Your task to perform on an android device: Search for "logitech g pro" on target.com, select the first entry, and add it to the cart. Image 0: 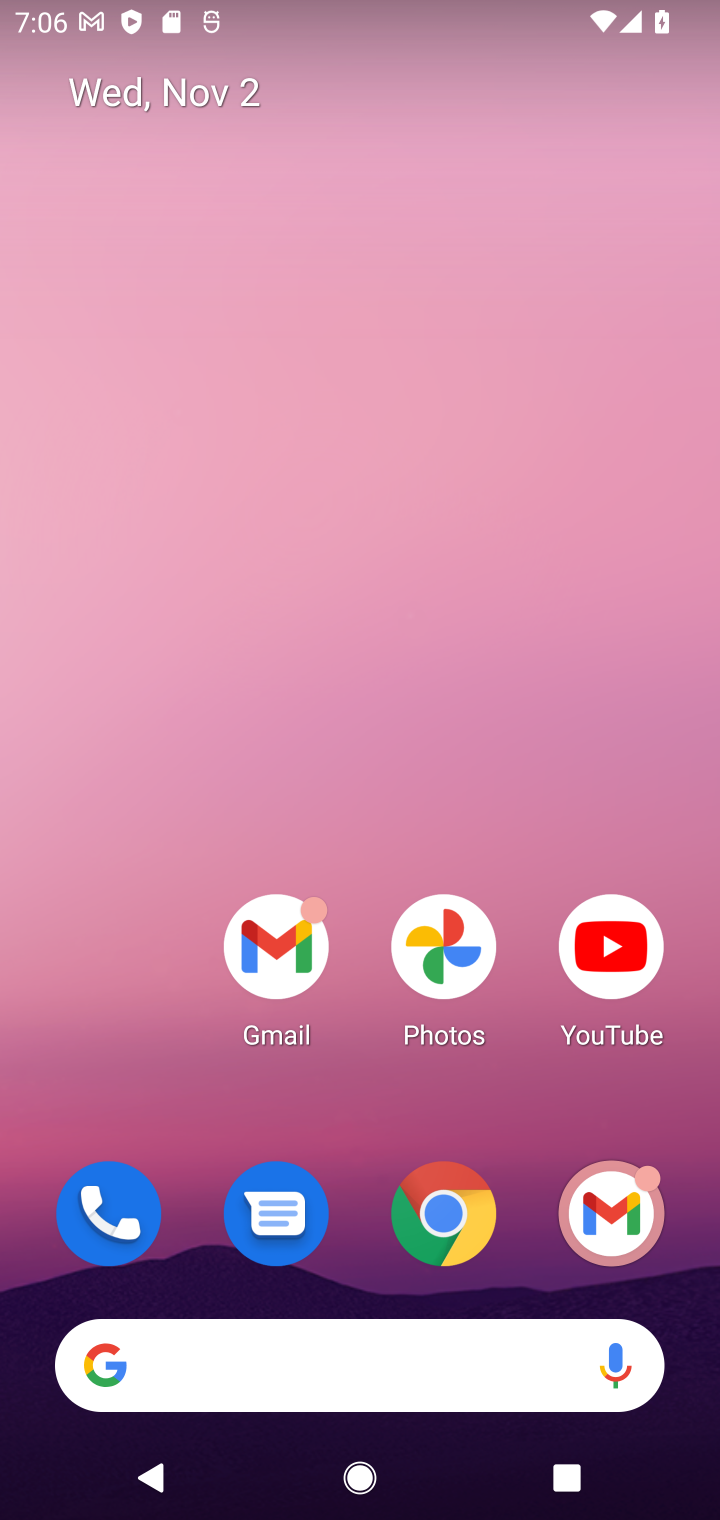
Step 0: click (439, 1219)
Your task to perform on an android device: Search for "logitech g pro" on target.com, select the first entry, and add it to the cart. Image 1: 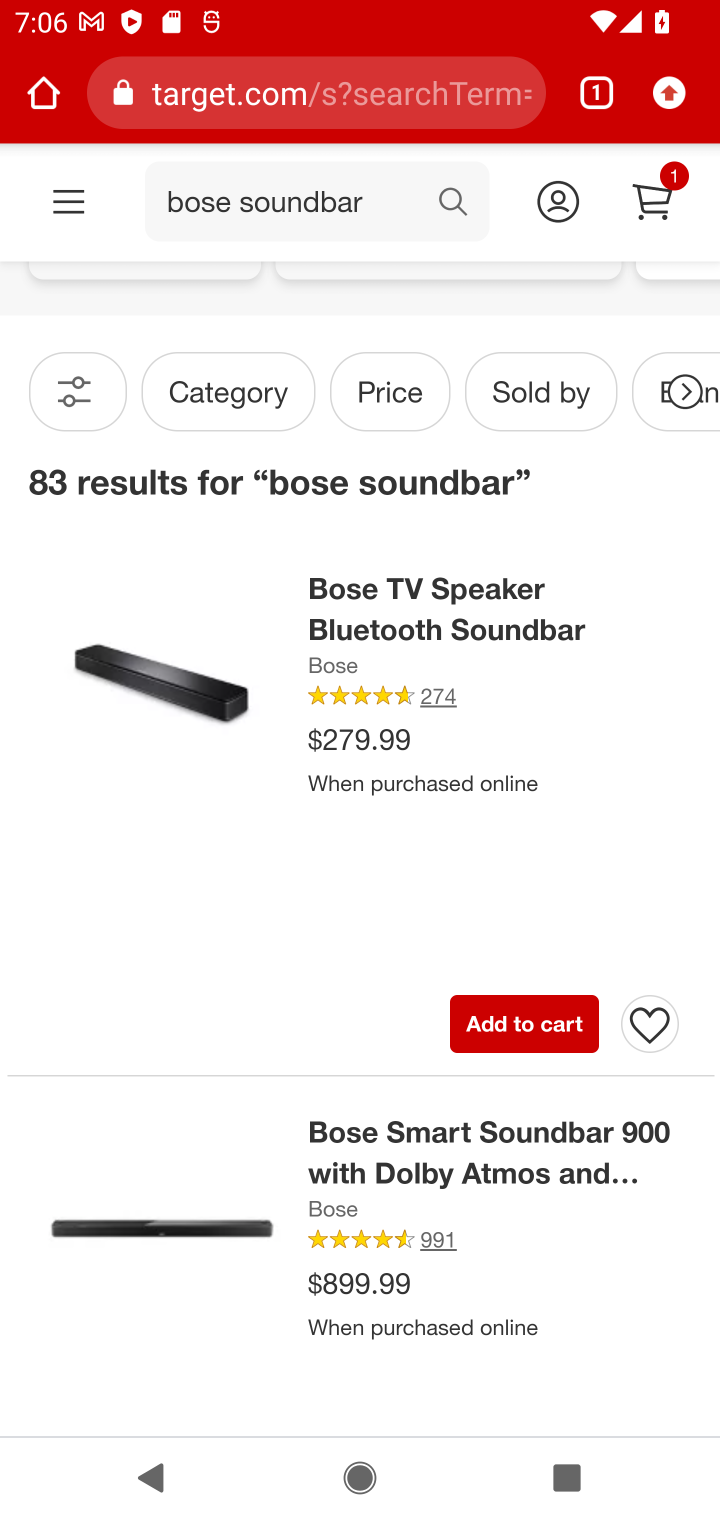
Step 1: click (335, 61)
Your task to perform on an android device: Search for "logitech g pro" on target.com, select the first entry, and add it to the cart. Image 2: 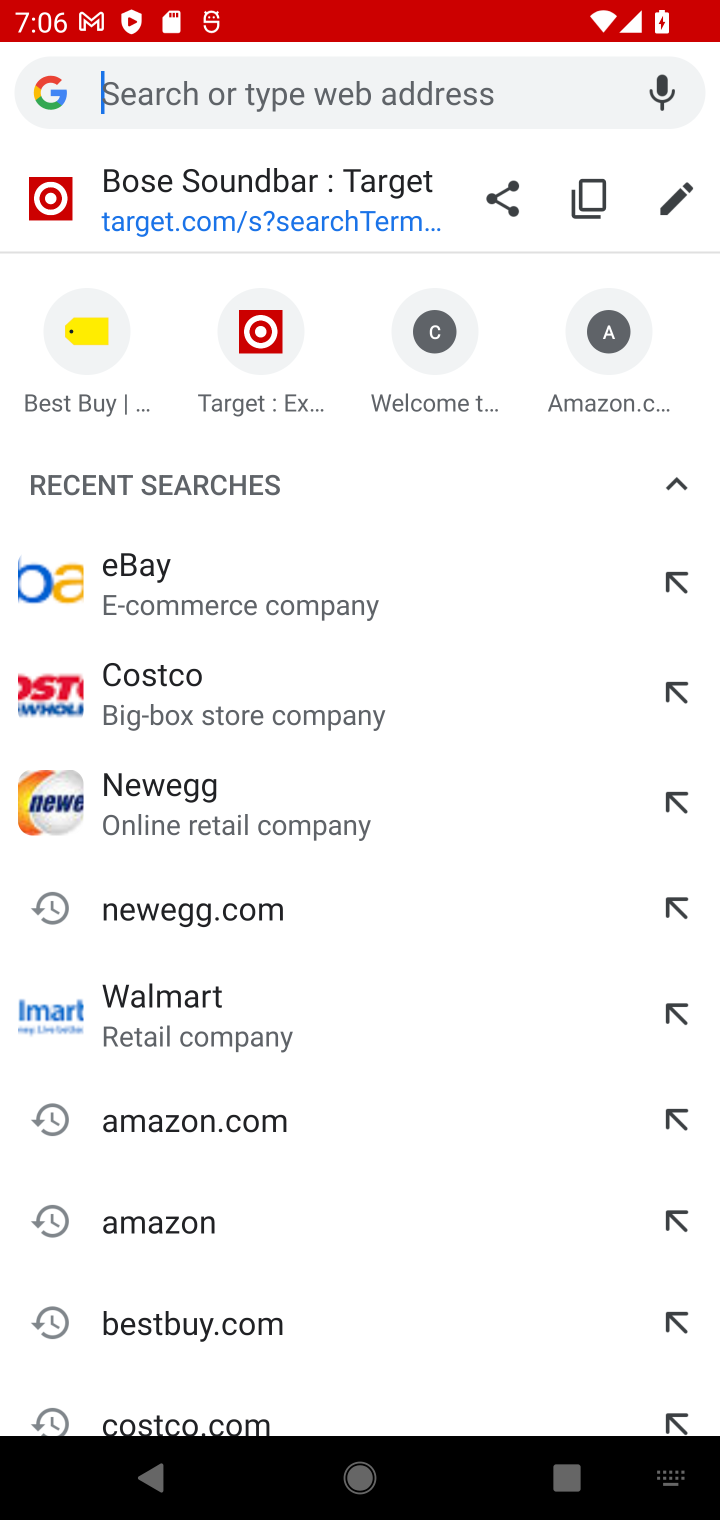
Step 2: type "target.com"
Your task to perform on an android device: Search for "logitech g pro" on target.com, select the first entry, and add it to the cart. Image 3: 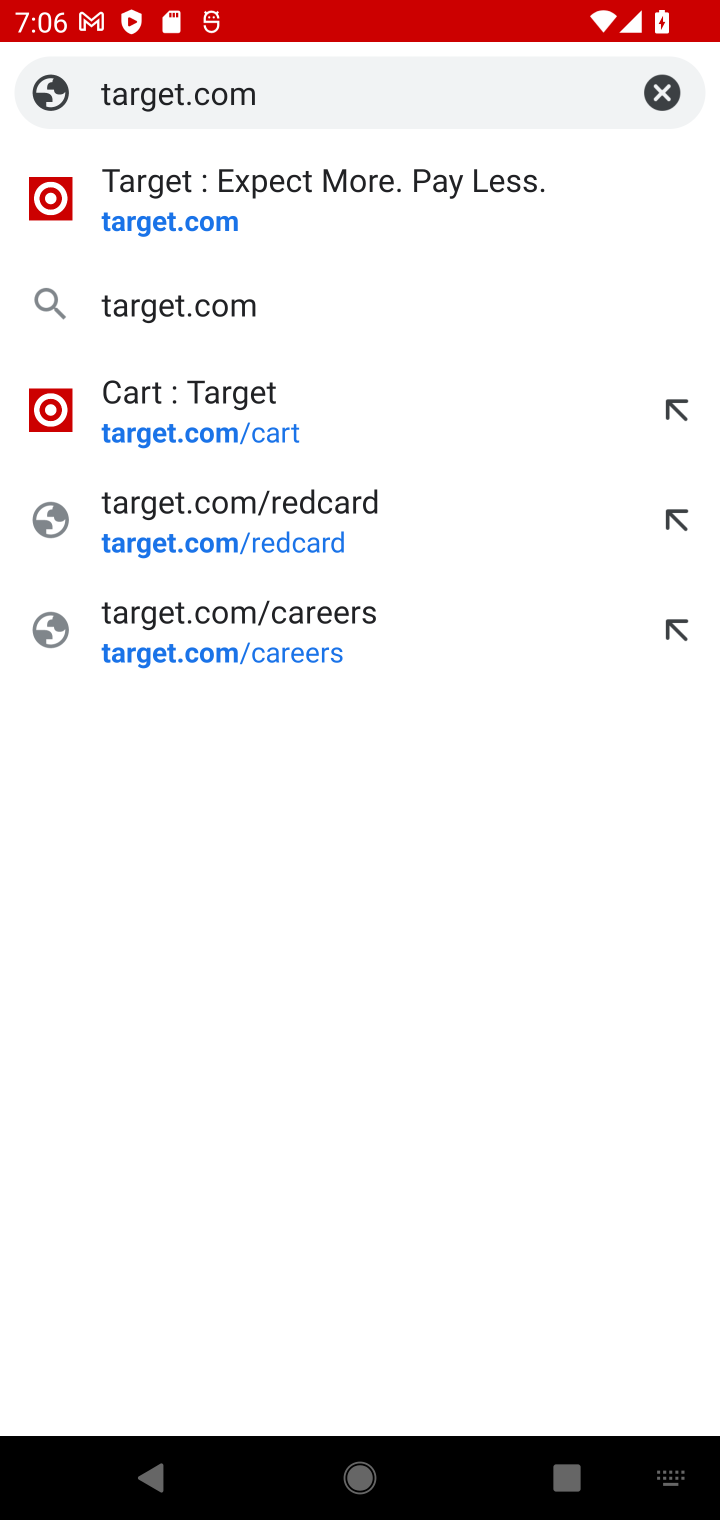
Step 3: click (157, 185)
Your task to perform on an android device: Search for "logitech g pro" on target.com, select the first entry, and add it to the cart. Image 4: 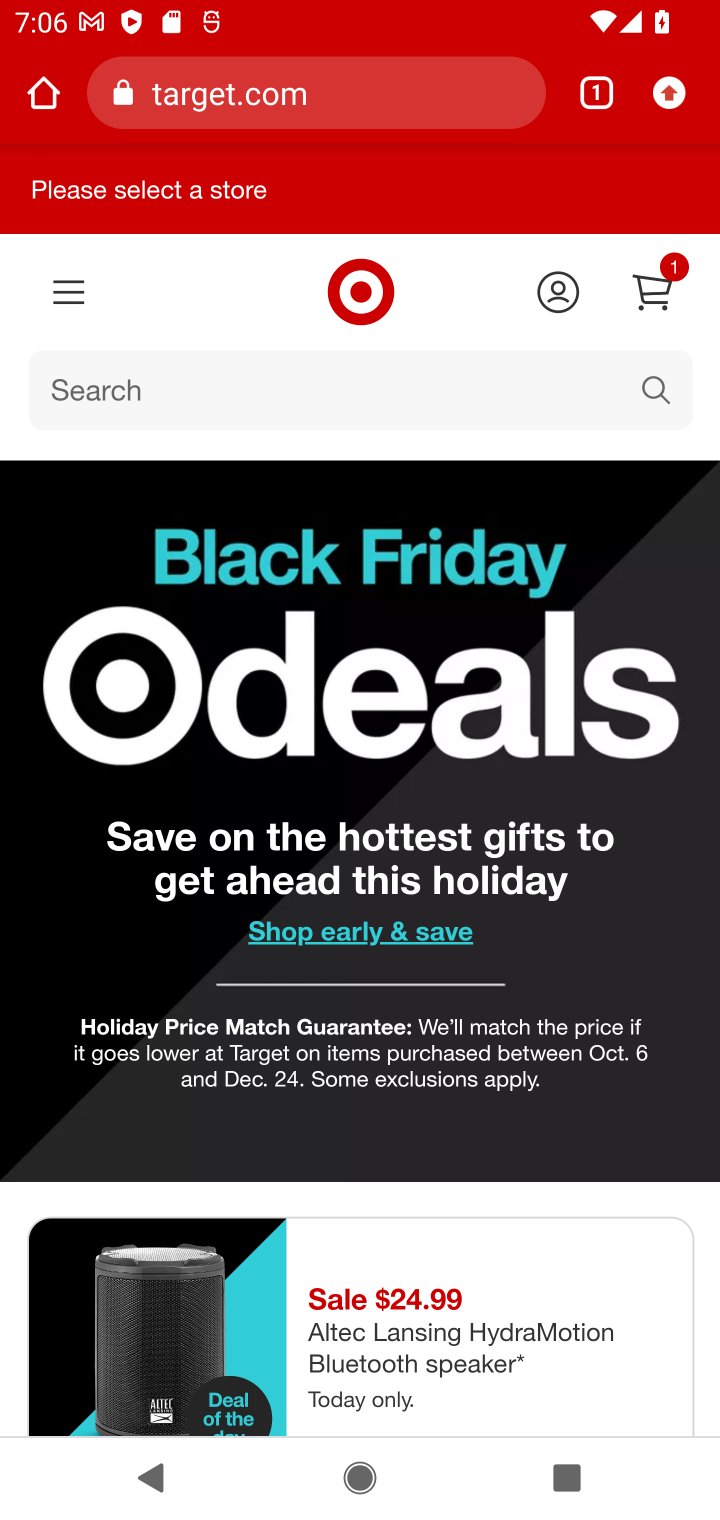
Step 4: click (274, 392)
Your task to perform on an android device: Search for "logitech g pro" on target.com, select the first entry, and add it to the cart. Image 5: 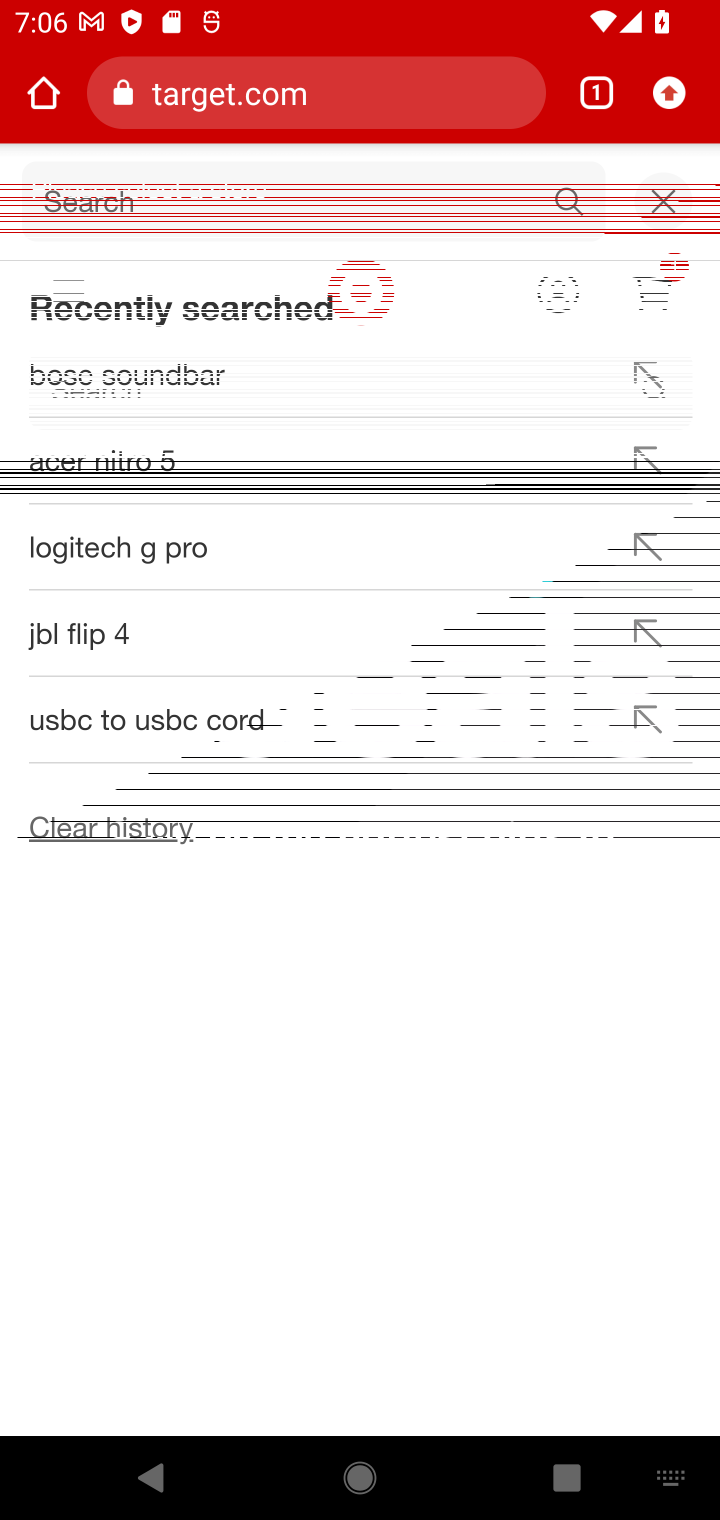
Step 5: type "logitech g pro"
Your task to perform on an android device: Search for "logitech g pro" on target.com, select the first entry, and add it to the cart. Image 6: 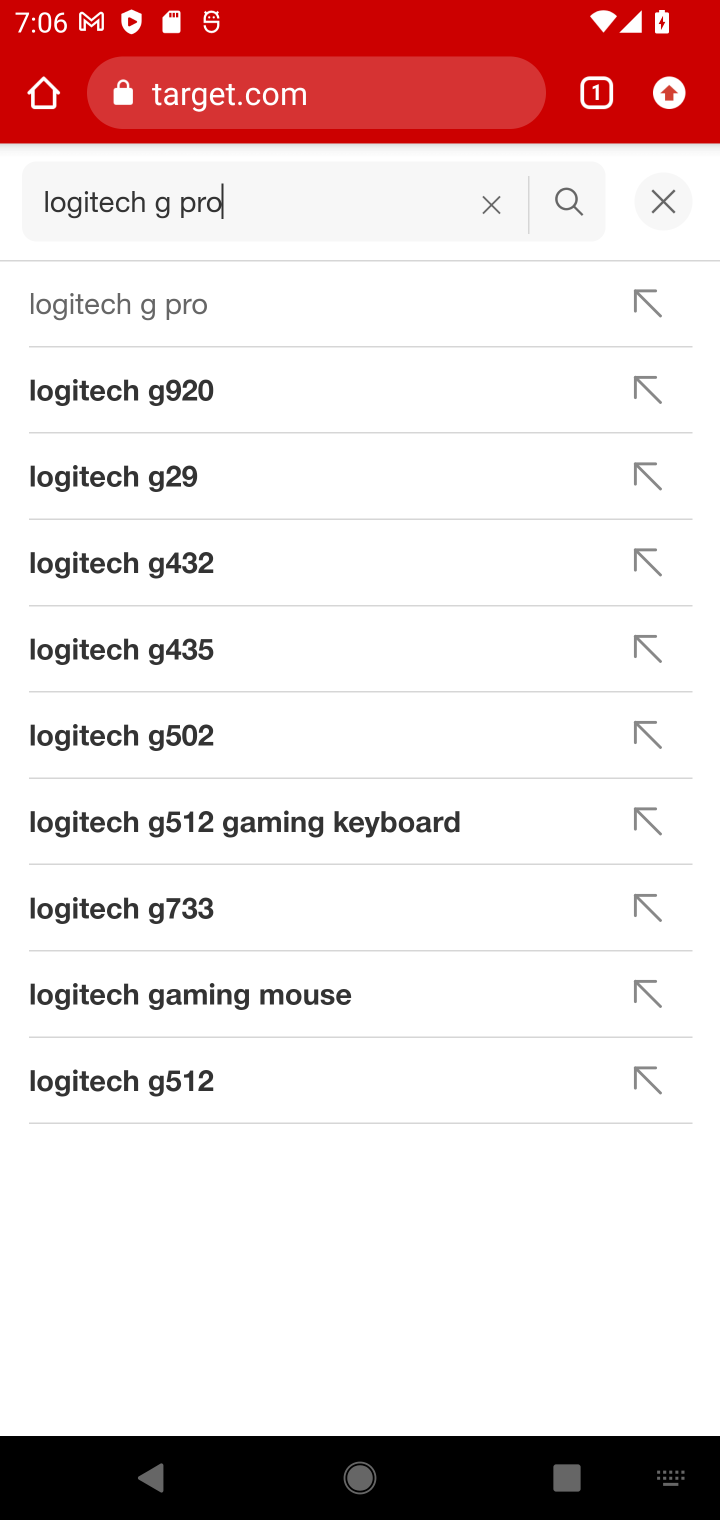
Step 6: click (84, 296)
Your task to perform on an android device: Search for "logitech g pro" on target.com, select the first entry, and add it to the cart. Image 7: 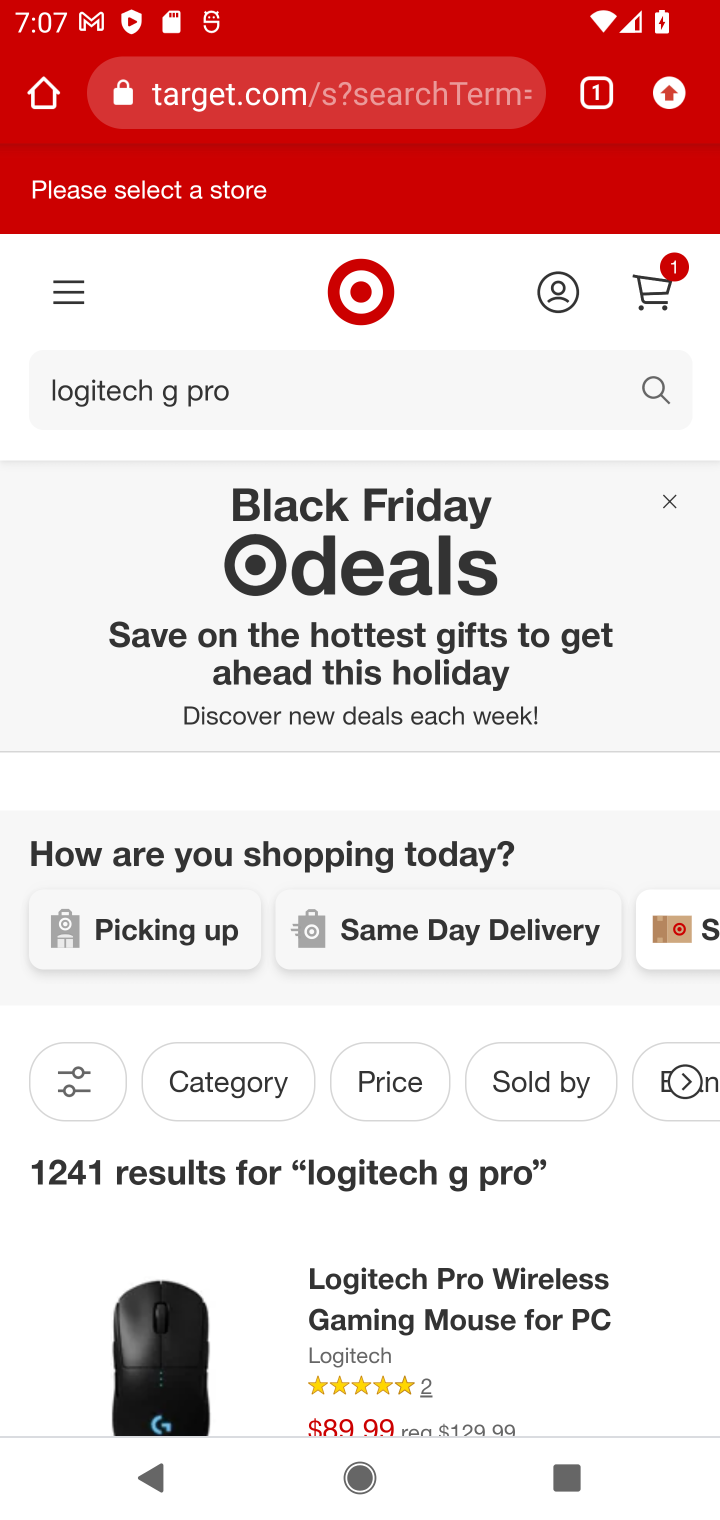
Step 7: drag from (385, 1309) to (325, 691)
Your task to perform on an android device: Search for "logitech g pro" on target.com, select the first entry, and add it to the cart. Image 8: 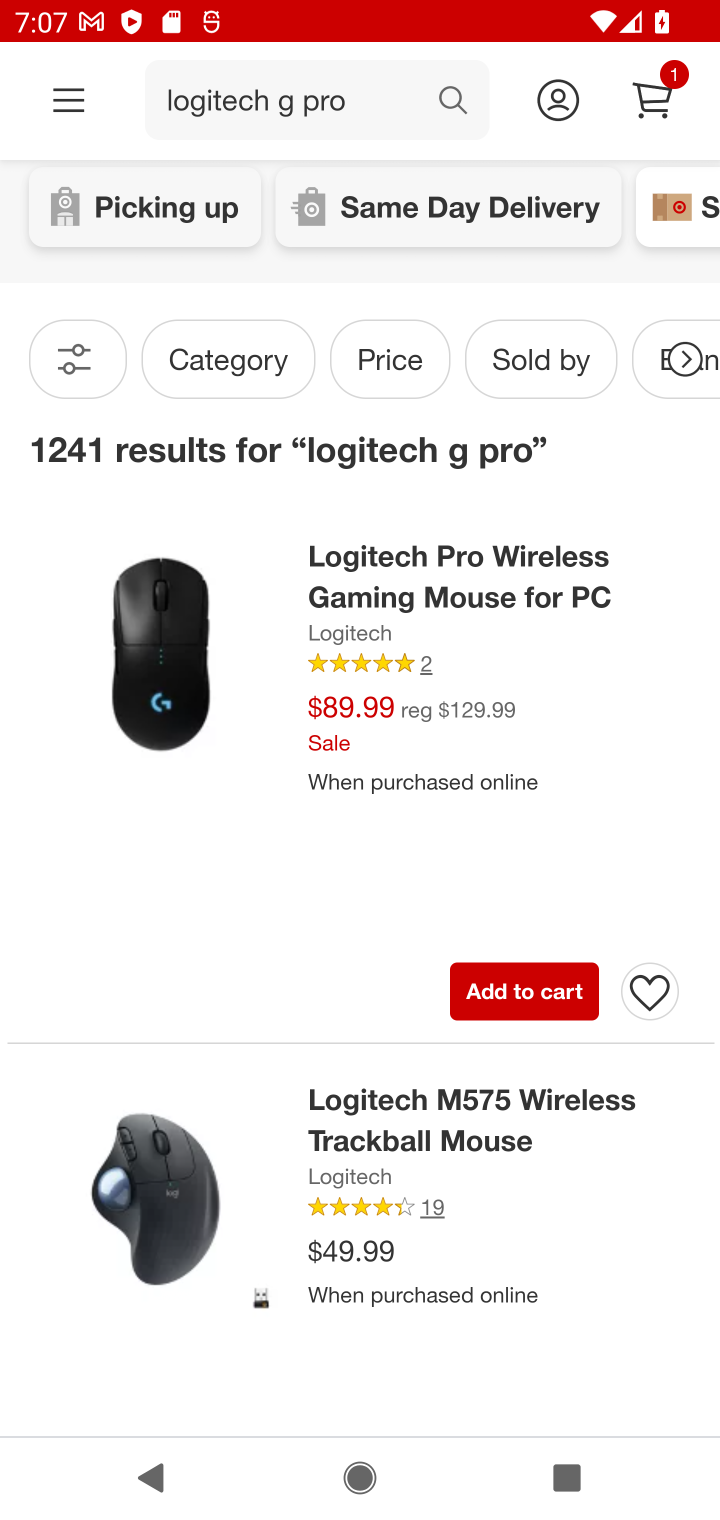
Step 8: click (513, 996)
Your task to perform on an android device: Search for "logitech g pro" on target.com, select the first entry, and add it to the cart. Image 9: 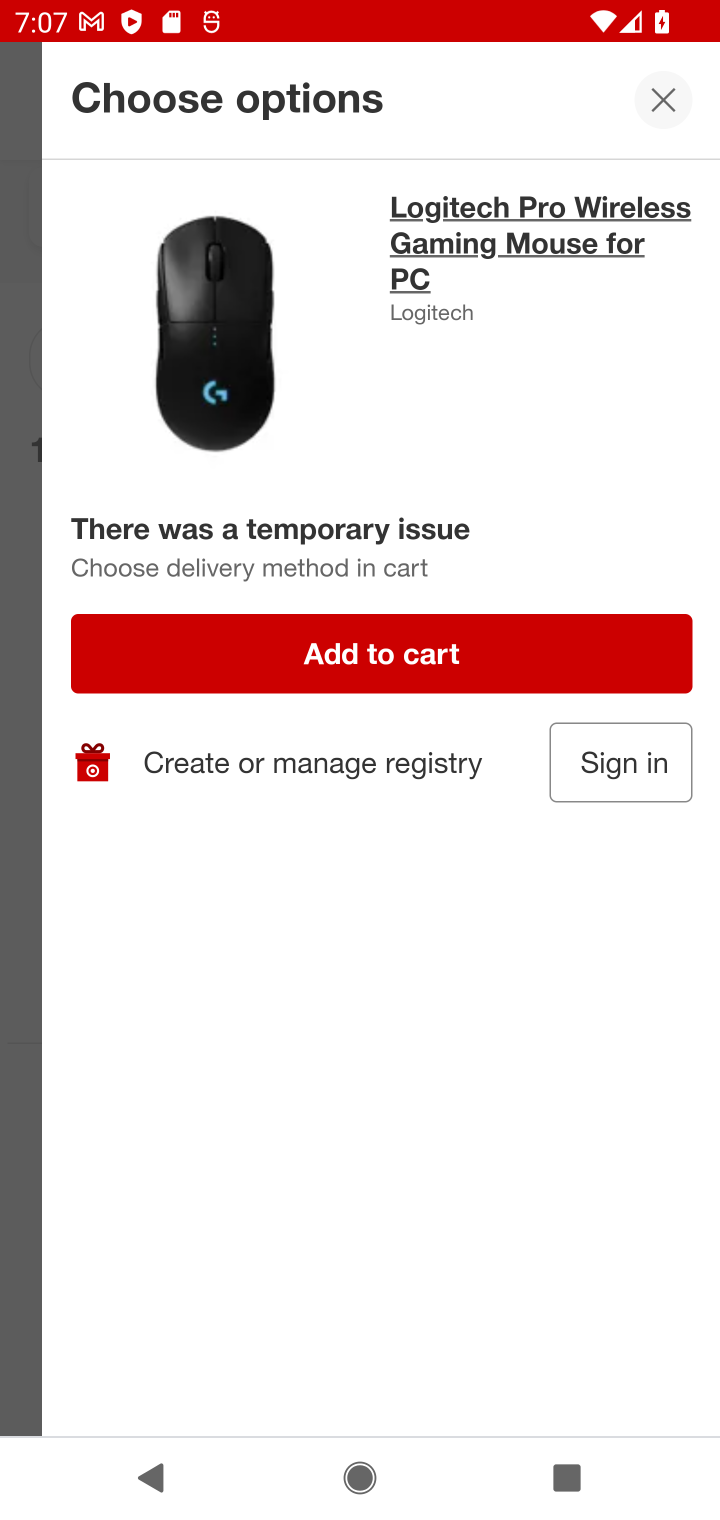
Step 9: click (370, 641)
Your task to perform on an android device: Search for "logitech g pro" on target.com, select the first entry, and add it to the cart. Image 10: 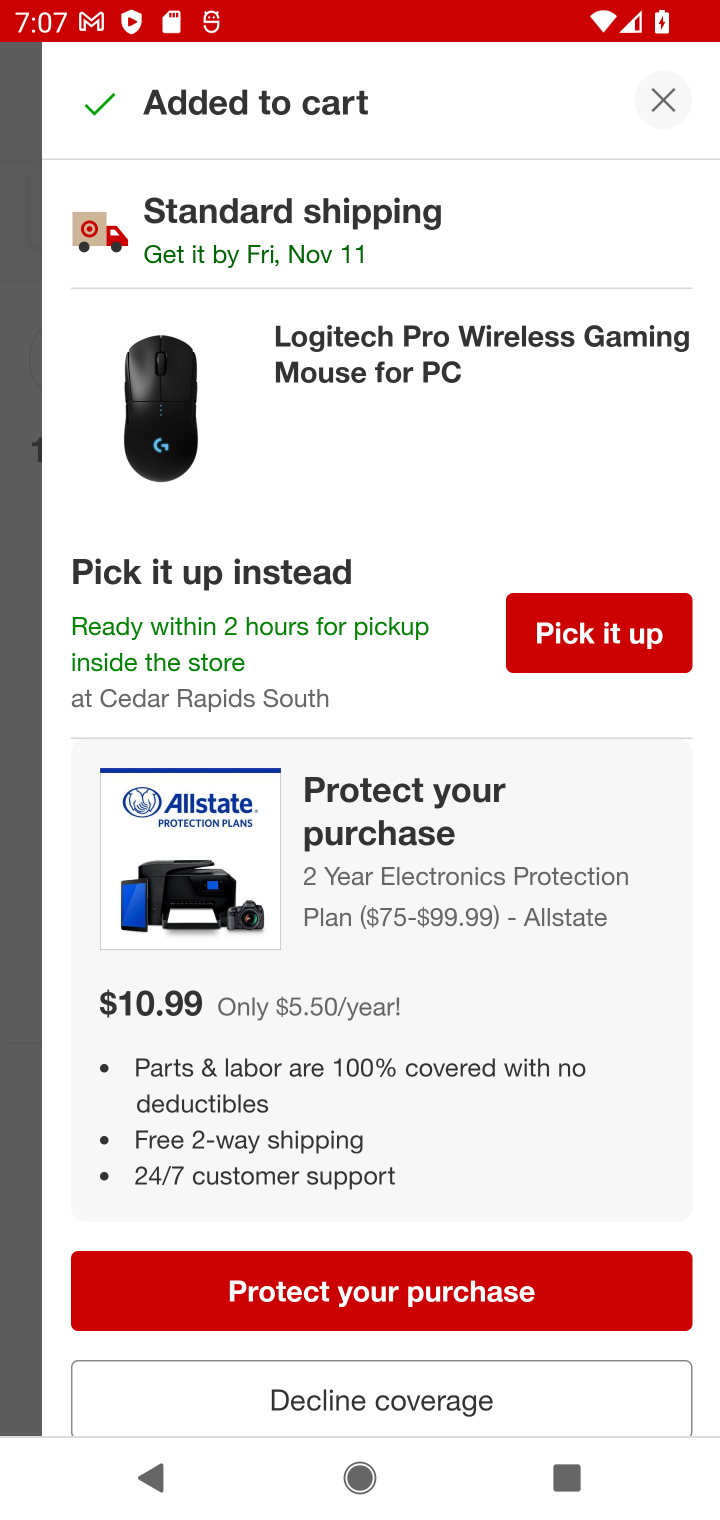
Step 10: task complete